Your task to perform on an android device: Open ESPN.com Image 0: 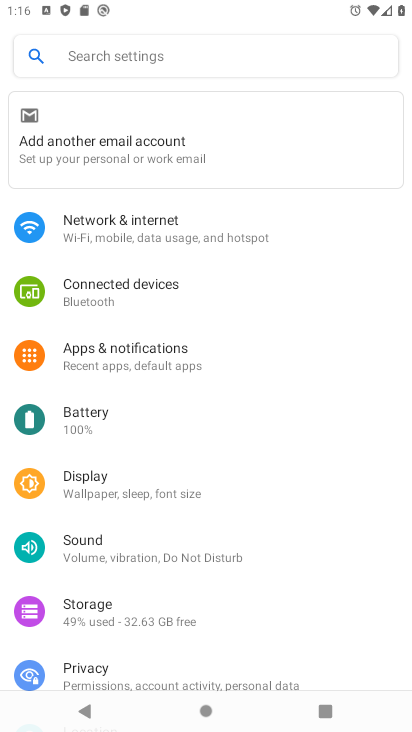
Step 0: press home button
Your task to perform on an android device: Open ESPN.com Image 1: 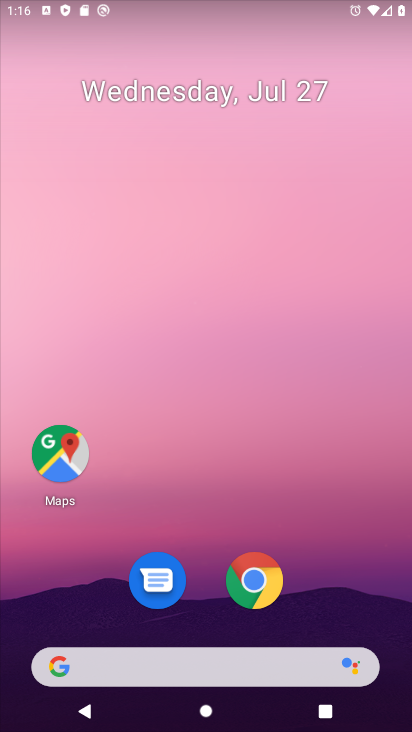
Step 1: click (266, 598)
Your task to perform on an android device: Open ESPN.com Image 2: 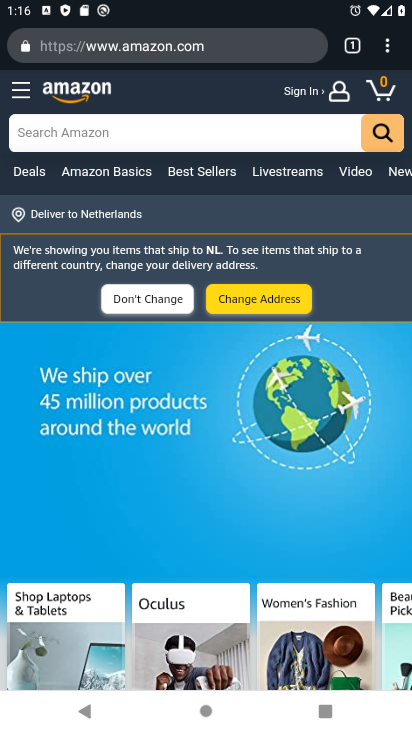
Step 2: click (348, 39)
Your task to perform on an android device: Open ESPN.com Image 3: 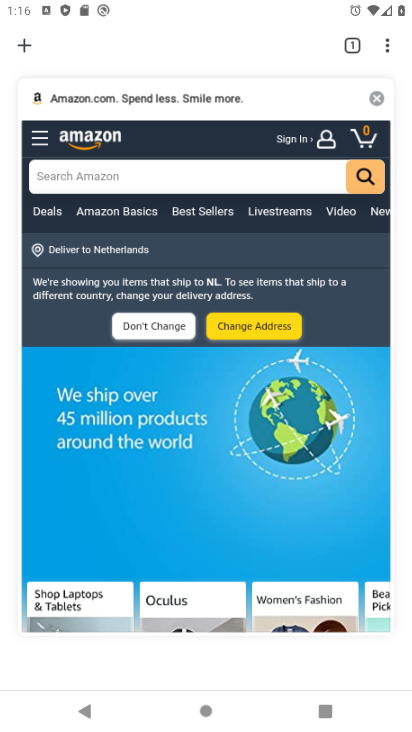
Step 3: click (34, 49)
Your task to perform on an android device: Open ESPN.com Image 4: 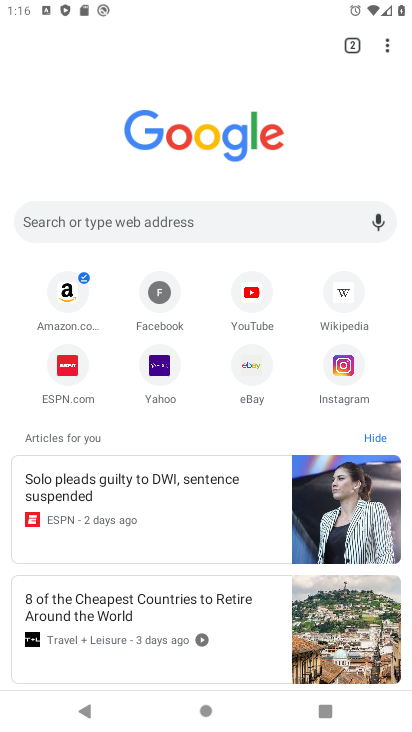
Step 4: click (79, 373)
Your task to perform on an android device: Open ESPN.com Image 5: 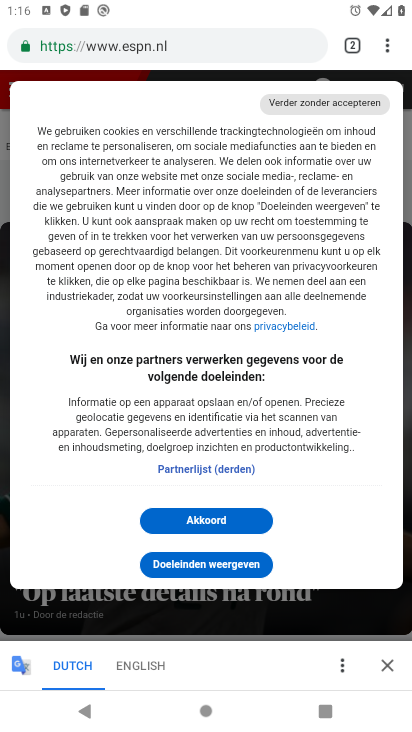
Step 5: click (206, 529)
Your task to perform on an android device: Open ESPN.com Image 6: 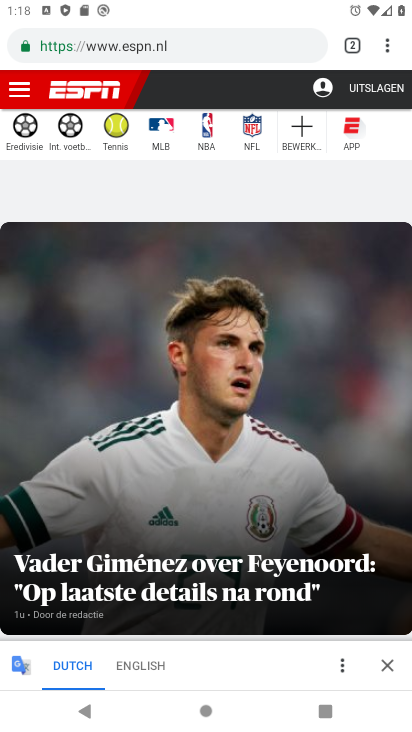
Step 6: task complete